Your task to perform on an android device: turn pop-ups off in chrome Image 0: 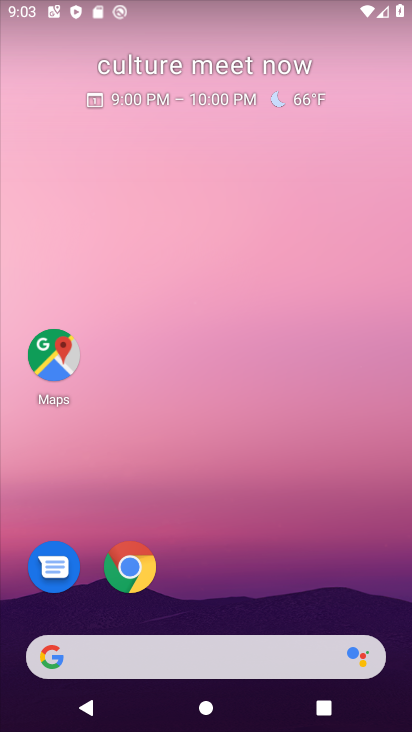
Step 0: click (129, 559)
Your task to perform on an android device: turn pop-ups off in chrome Image 1: 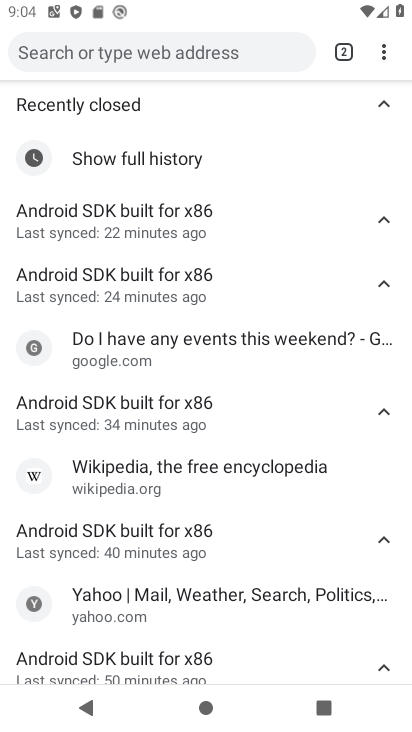
Step 1: click (388, 55)
Your task to perform on an android device: turn pop-ups off in chrome Image 2: 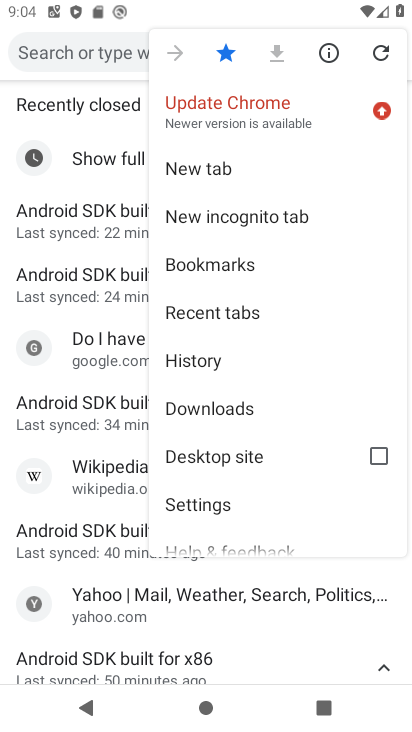
Step 2: click (176, 514)
Your task to perform on an android device: turn pop-ups off in chrome Image 3: 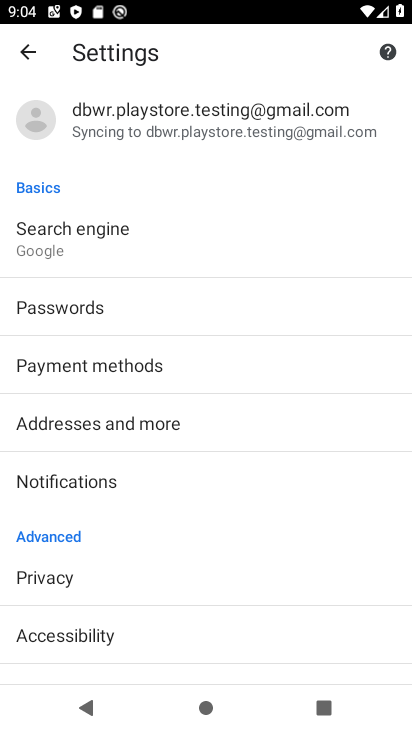
Step 3: drag from (124, 593) to (153, 174)
Your task to perform on an android device: turn pop-ups off in chrome Image 4: 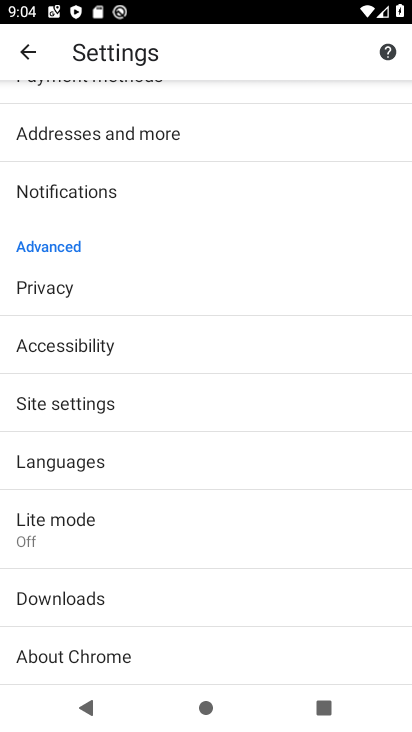
Step 4: click (89, 392)
Your task to perform on an android device: turn pop-ups off in chrome Image 5: 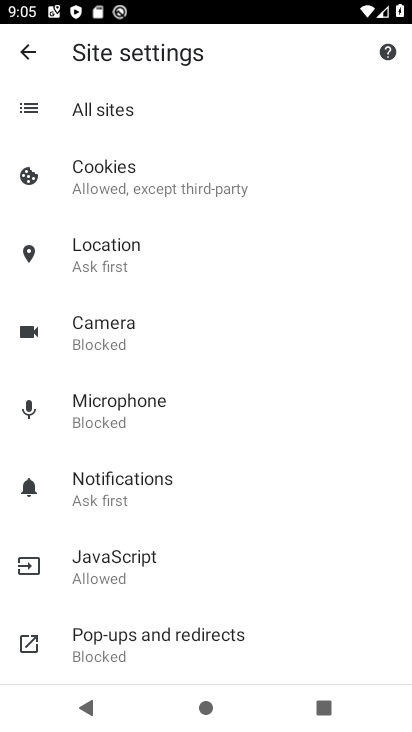
Step 5: click (133, 635)
Your task to perform on an android device: turn pop-ups off in chrome Image 6: 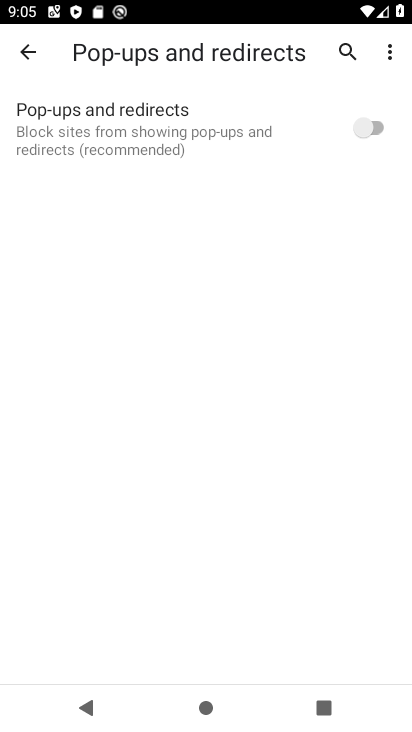
Step 6: task complete